Your task to perform on an android device: Check my email inbox Image 0: 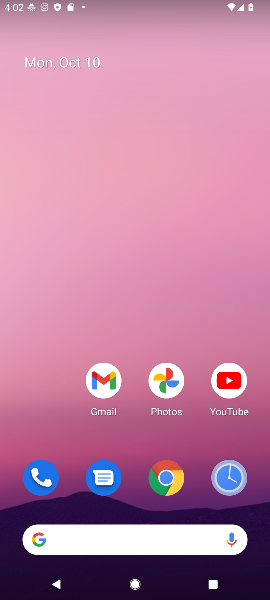
Step 0: click (103, 383)
Your task to perform on an android device: Check my email inbox Image 1: 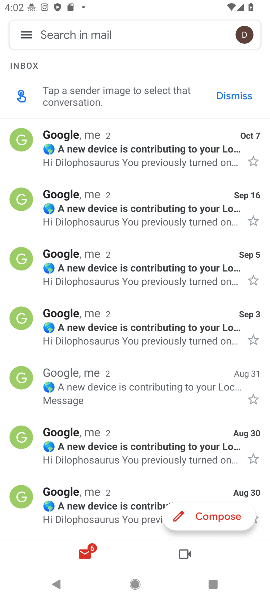
Step 1: click (27, 36)
Your task to perform on an android device: Check my email inbox Image 2: 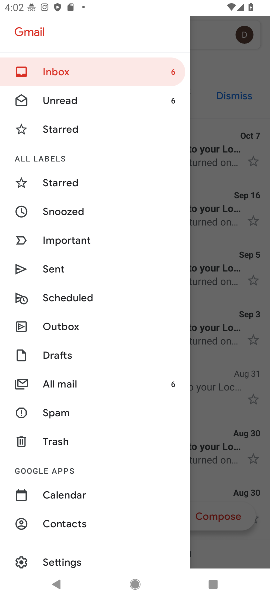
Step 2: click (45, 68)
Your task to perform on an android device: Check my email inbox Image 3: 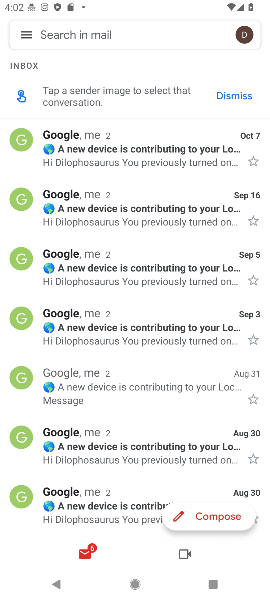
Step 3: task complete